Your task to perform on an android device: delete browsing data in the chrome app Image 0: 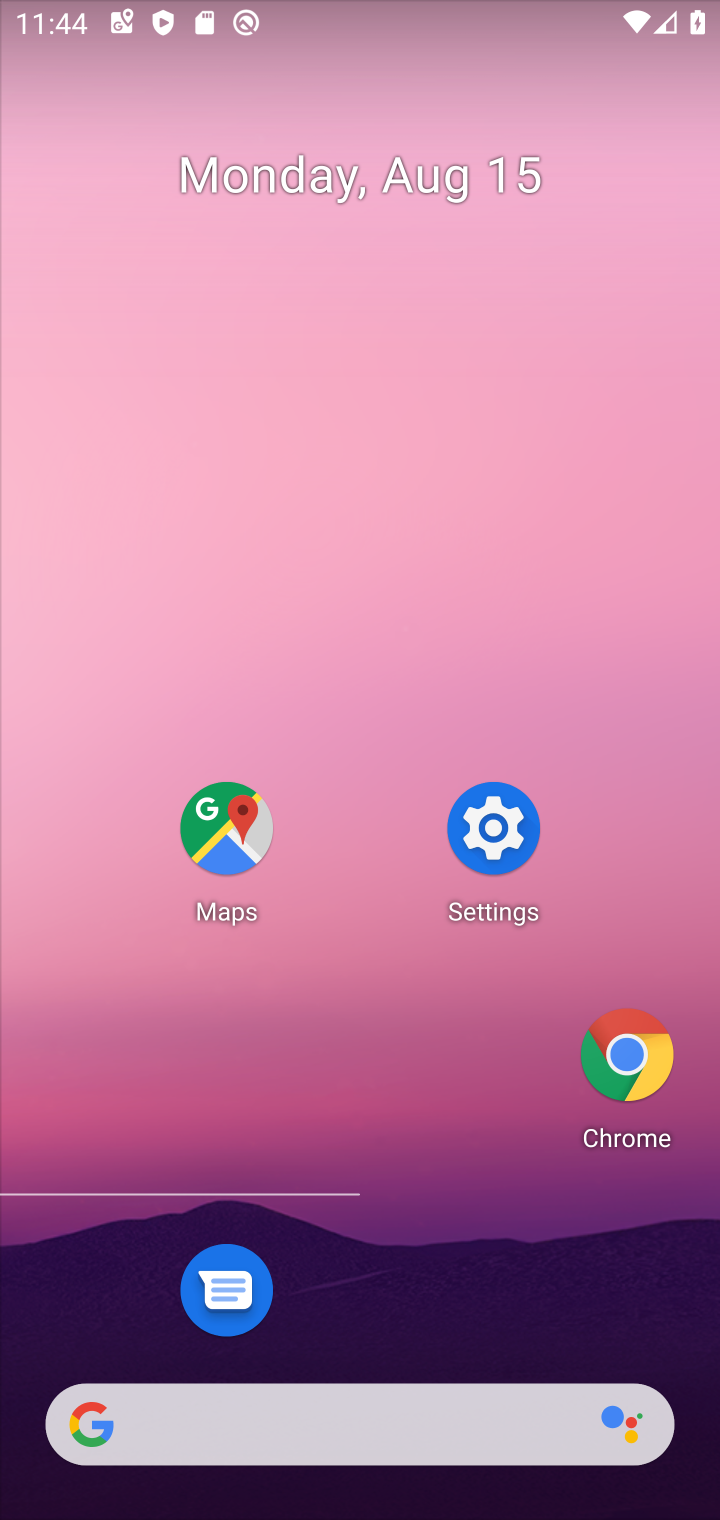
Step 0: click (608, 1075)
Your task to perform on an android device: delete browsing data in the chrome app Image 1: 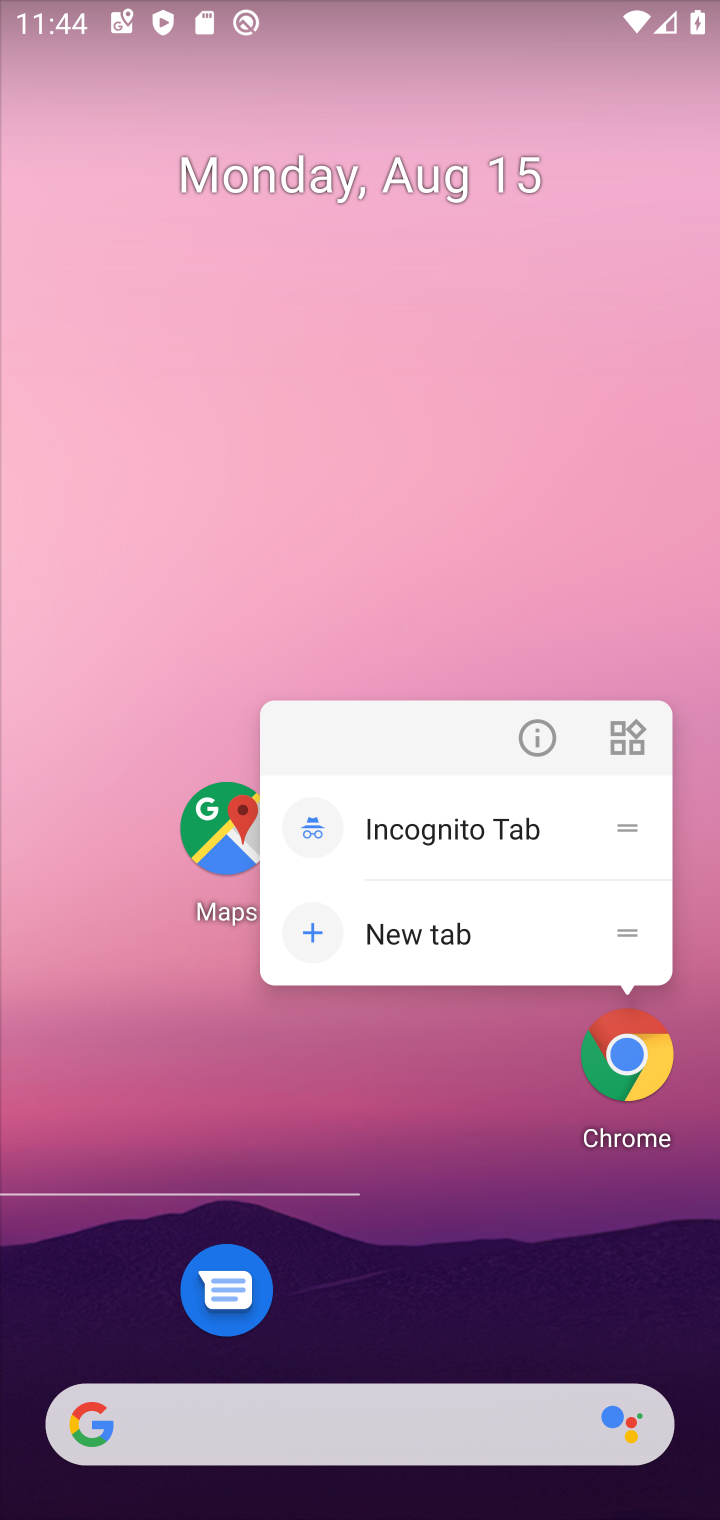
Step 1: click (608, 1084)
Your task to perform on an android device: delete browsing data in the chrome app Image 2: 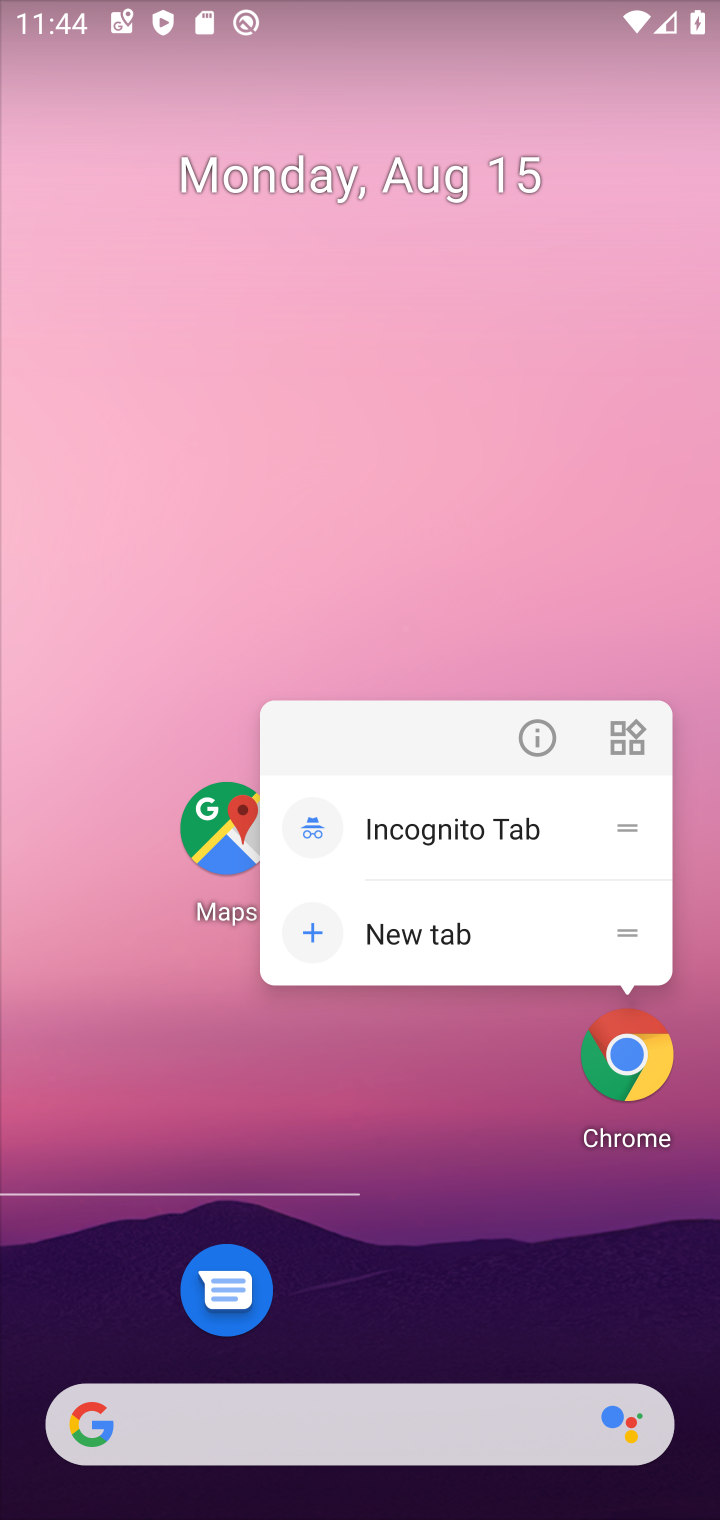
Step 2: click (638, 1053)
Your task to perform on an android device: delete browsing data in the chrome app Image 3: 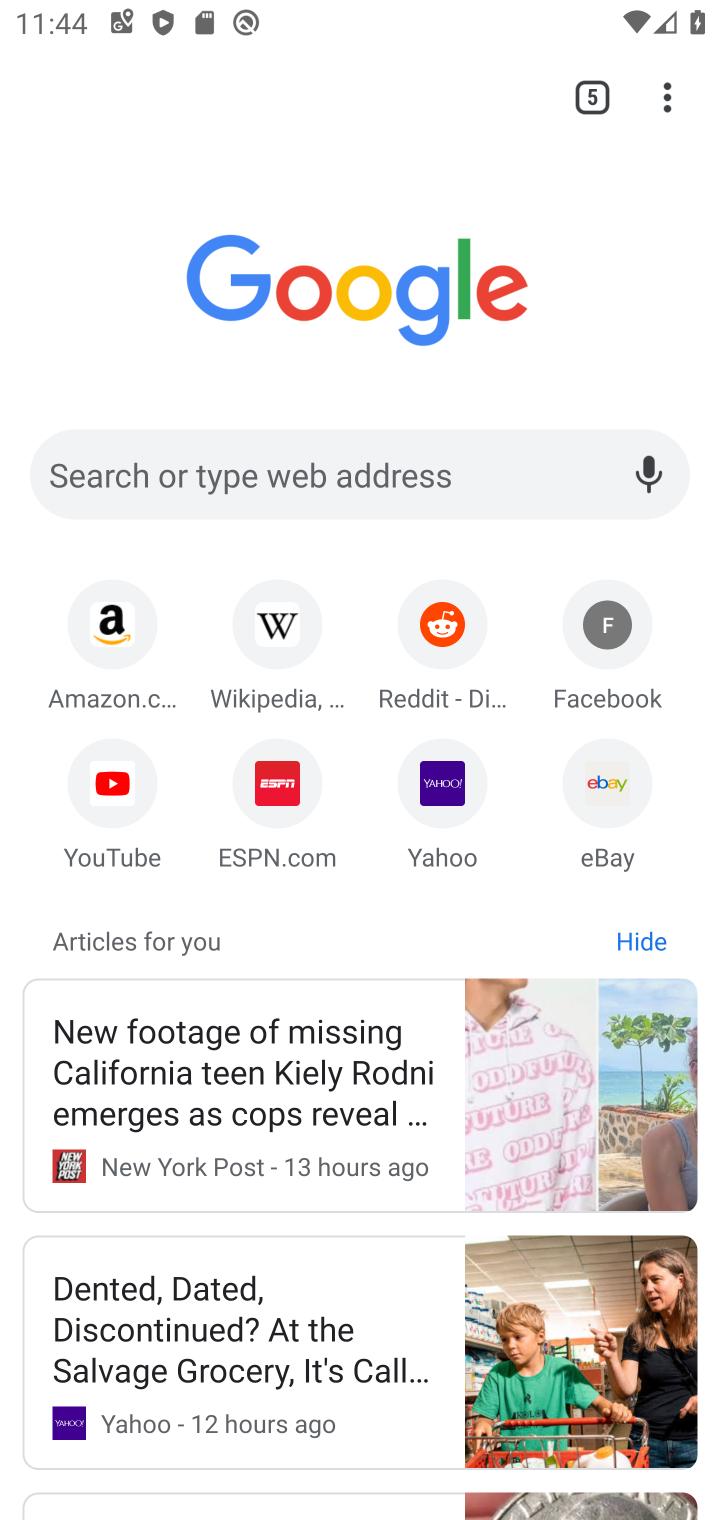
Step 3: drag from (666, 95) to (415, 834)
Your task to perform on an android device: delete browsing data in the chrome app Image 4: 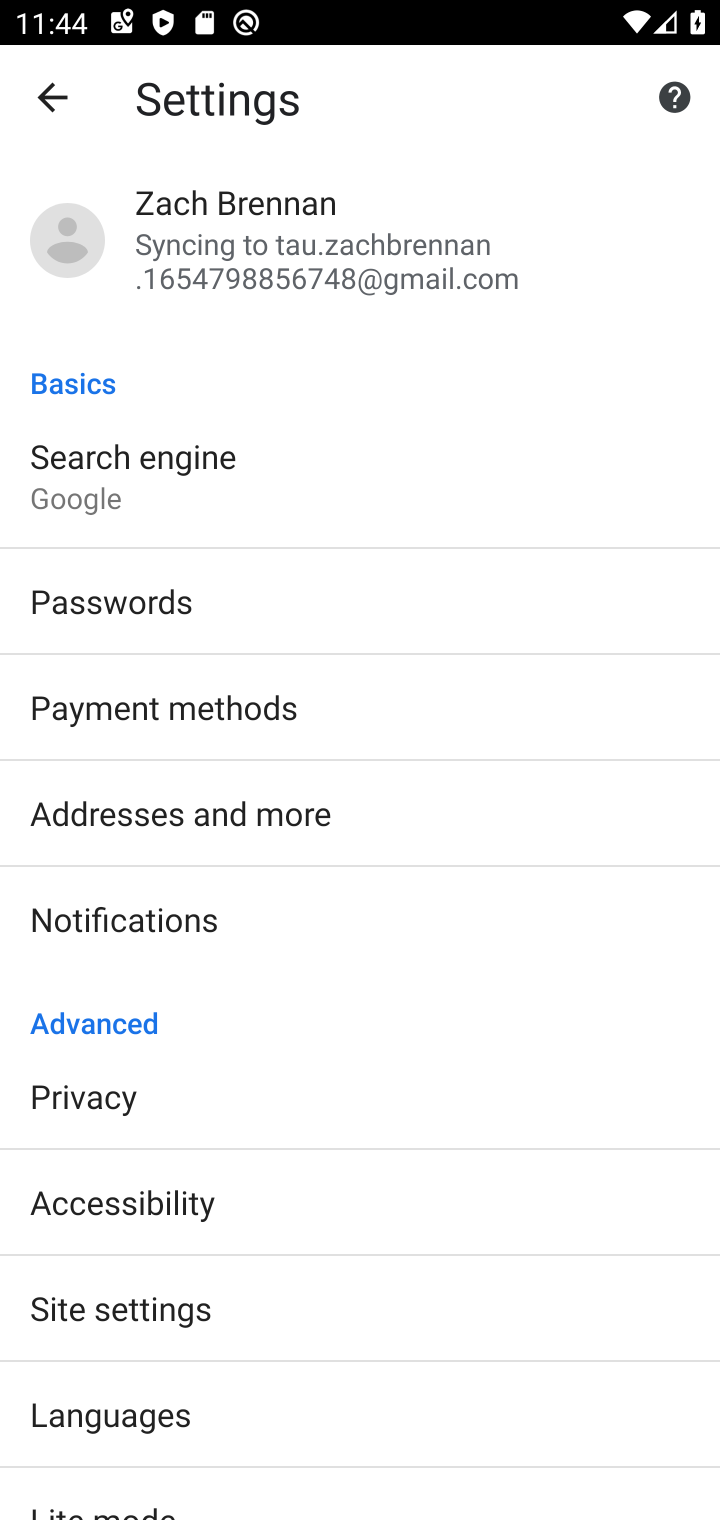
Step 4: click (116, 1081)
Your task to perform on an android device: delete browsing data in the chrome app Image 5: 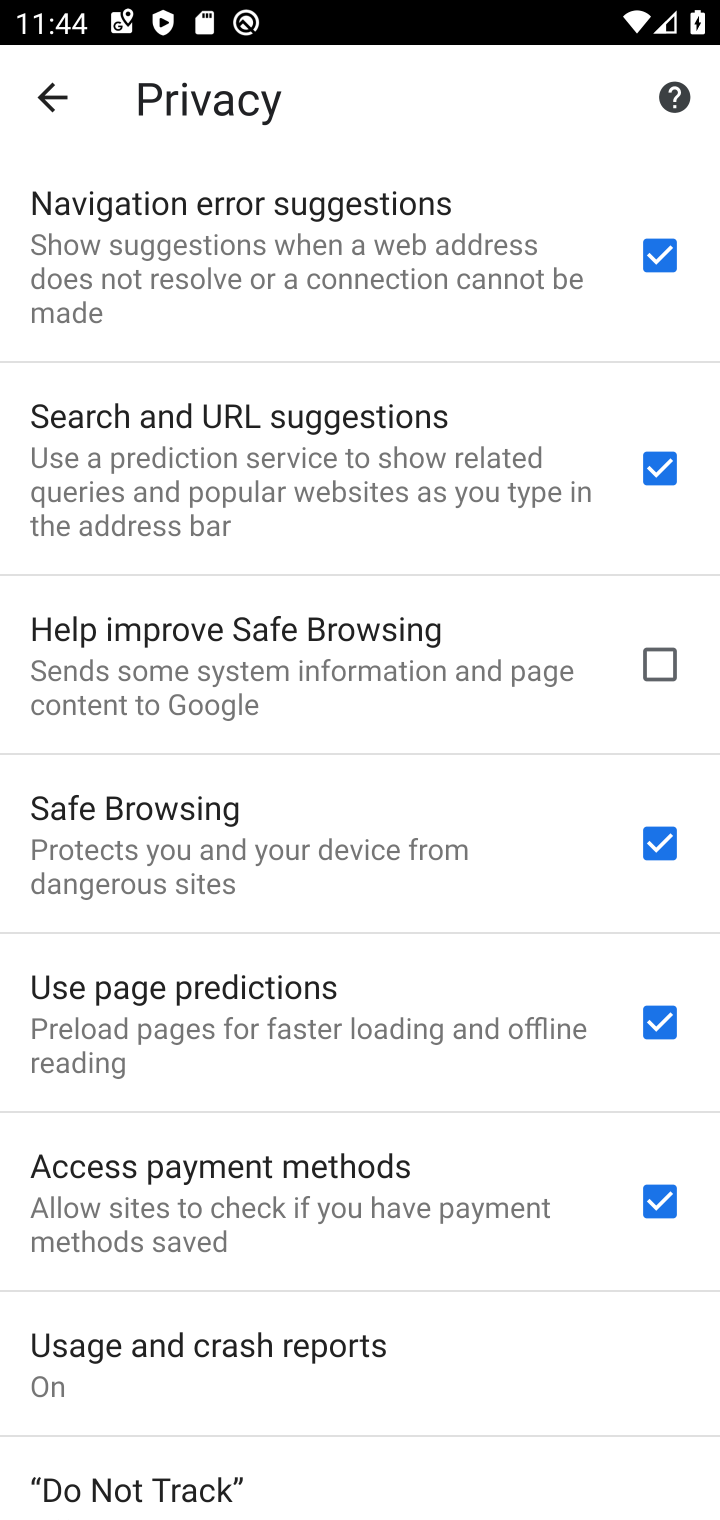
Step 5: drag from (358, 1386) to (439, 47)
Your task to perform on an android device: delete browsing data in the chrome app Image 6: 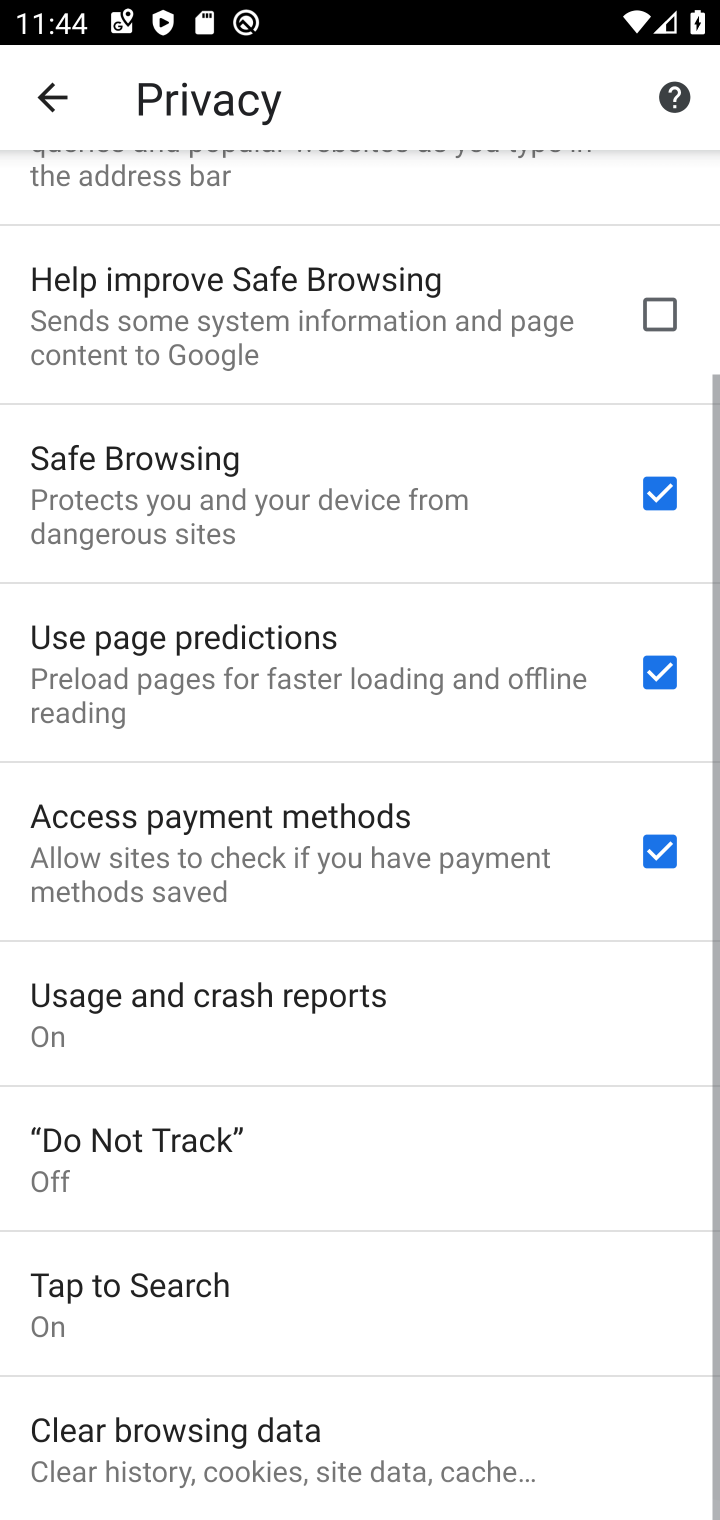
Step 6: click (146, 1446)
Your task to perform on an android device: delete browsing data in the chrome app Image 7: 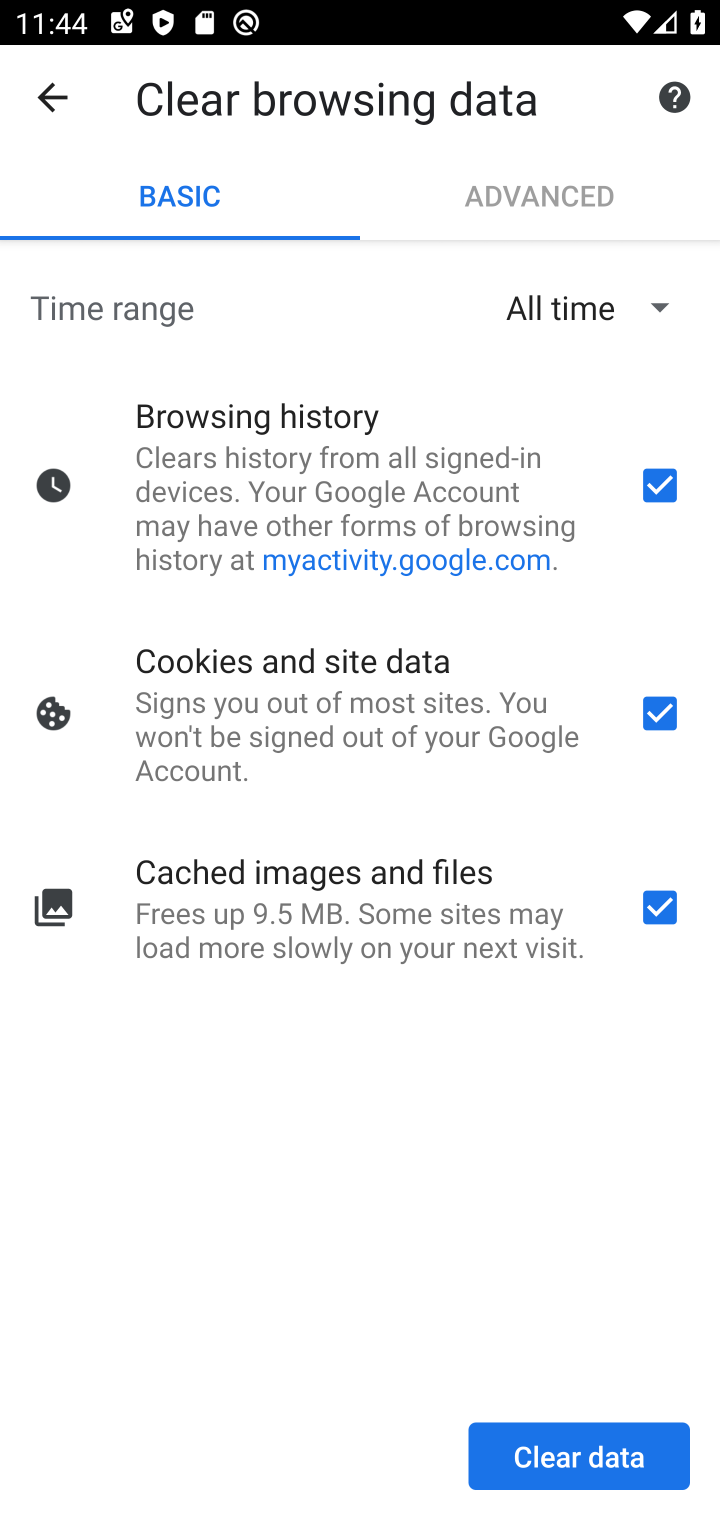
Step 7: click (557, 1457)
Your task to perform on an android device: delete browsing data in the chrome app Image 8: 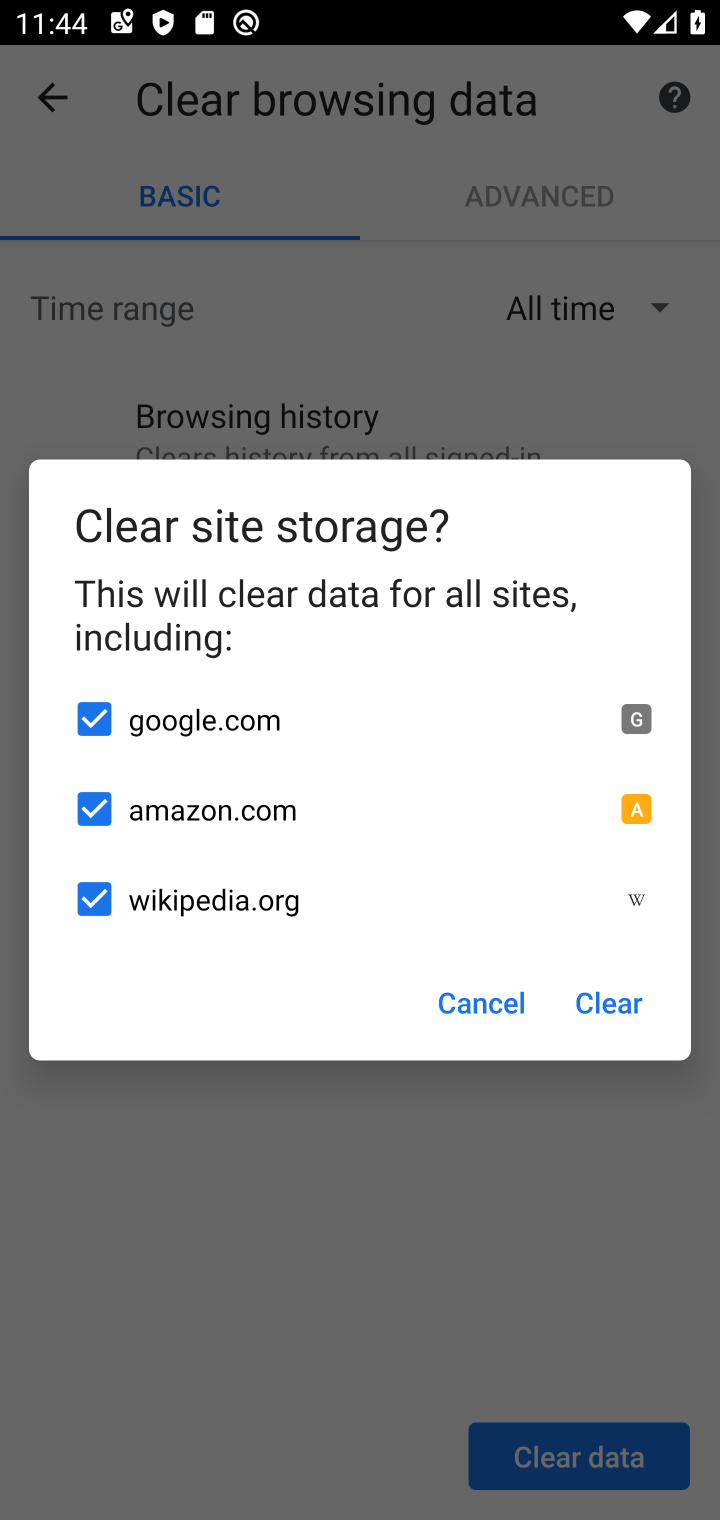
Step 8: click (613, 999)
Your task to perform on an android device: delete browsing data in the chrome app Image 9: 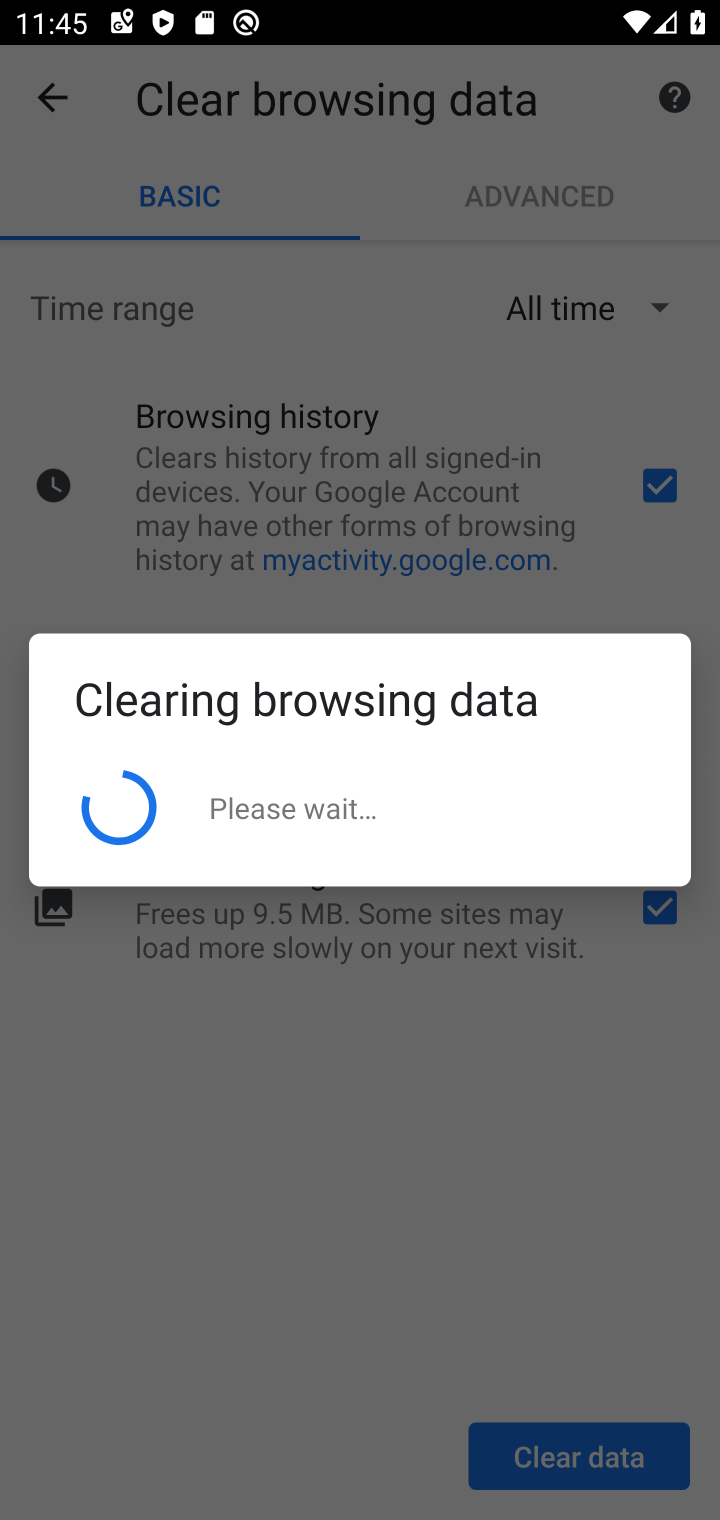
Step 9: task complete